Your task to perform on an android device: Go to wifi settings Image 0: 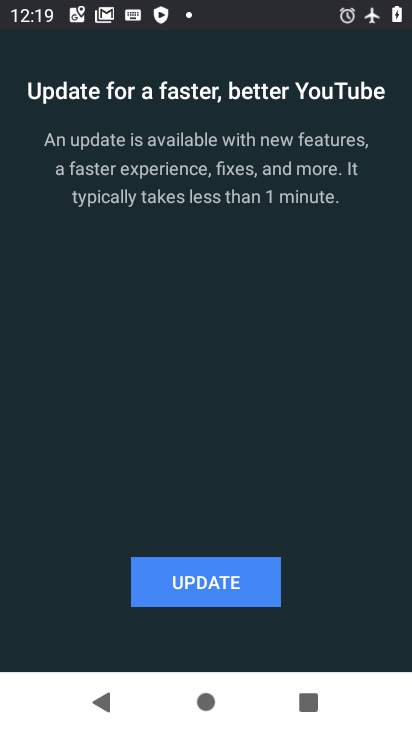
Step 0: press back button
Your task to perform on an android device: Go to wifi settings Image 1: 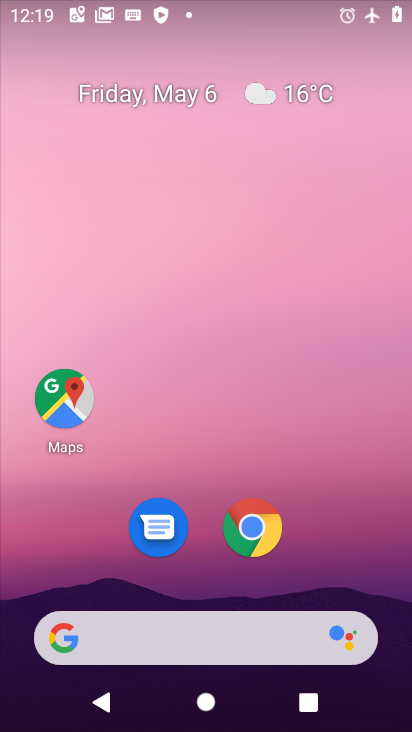
Step 1: drag from (329, 505) to (57, 60)
Your task to perform on an android device: Go to wifi settings Image 2: 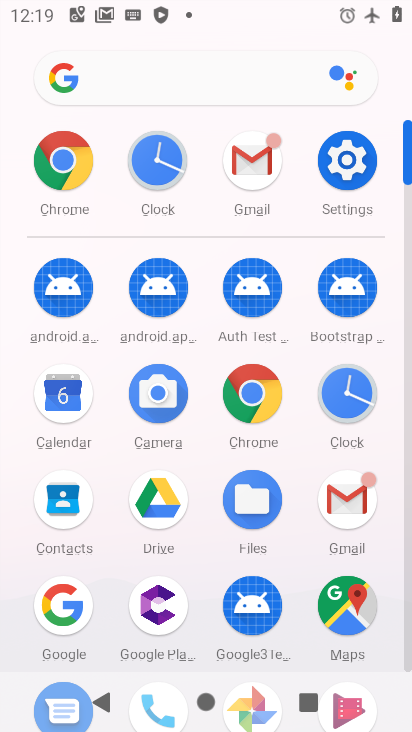
Step 2: click (337, 151)
Your task to perform on an android device: Go to wifi settings Image 3: 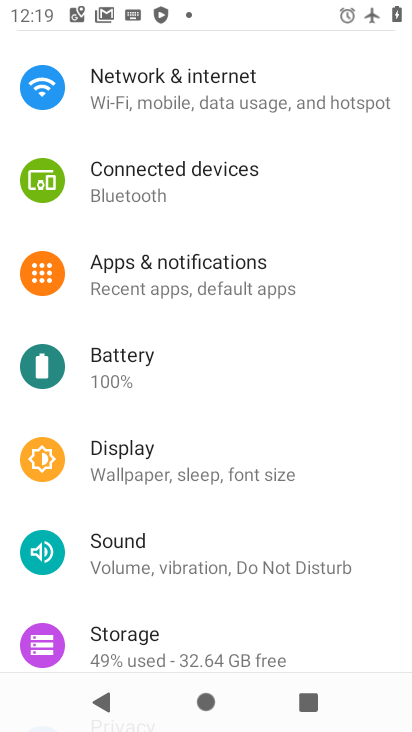
Step 3: click (138, 86)
Your task to perform on an android device: Go to wifi settings Image 4: 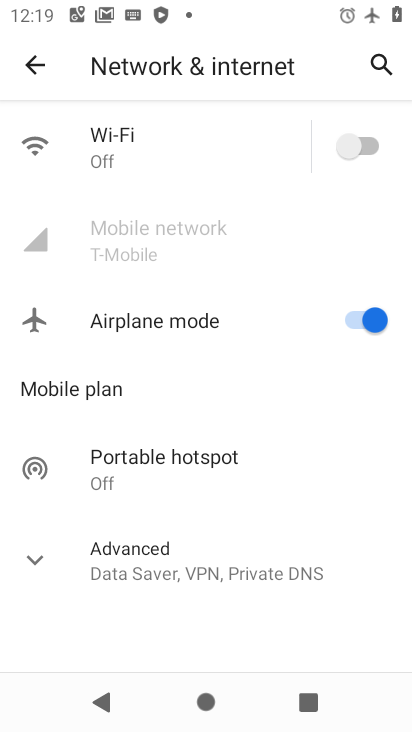
Step 4: click (82, 142)
Your task to perform on an android device: Go to wifi settings Image 5: 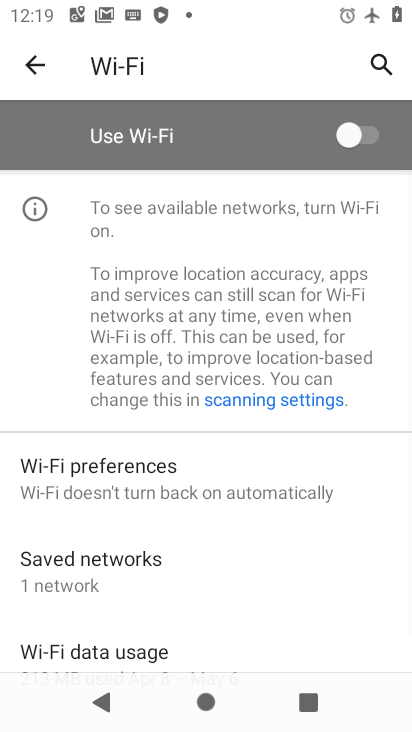
Step 5: task complete